Your task to perform on an android device: change keyboard looks Image 0: 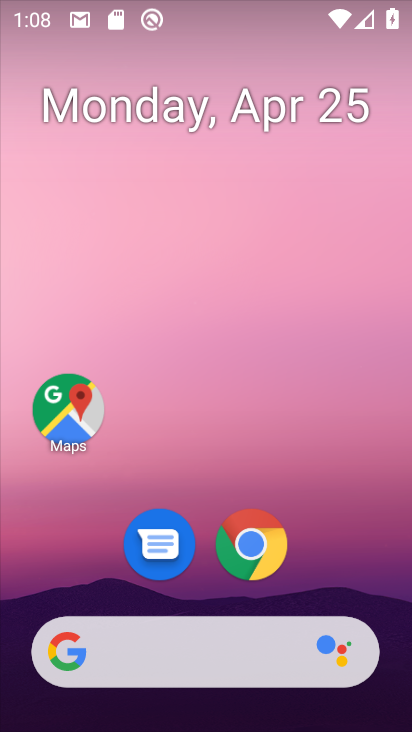
Step 0: drag from (248, 498) to (299, 4)
Your task to perform on an android device: change keyboard looks Image 1: 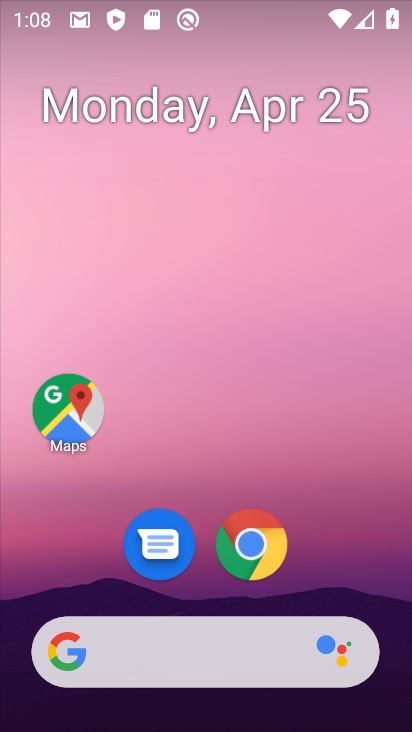
Step 1: drag from (323, 504) to (408, 34)
Your task to perform on an android device: change keyboard looks Image 2: 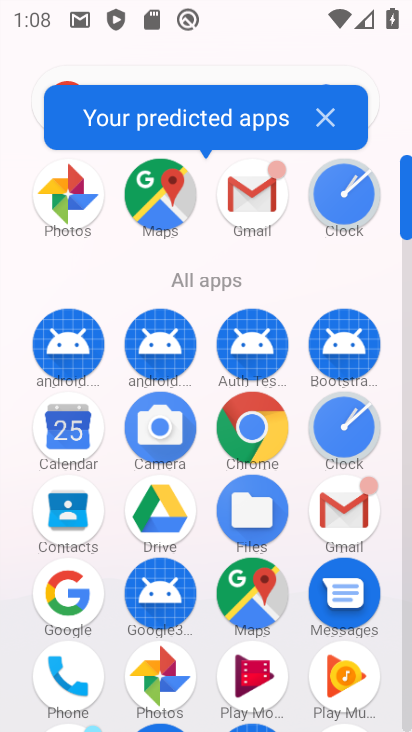
Step 2: drag from (233, 589) to (287, 344)
Your task to perform on an android device: change keyboard looks Image 3: 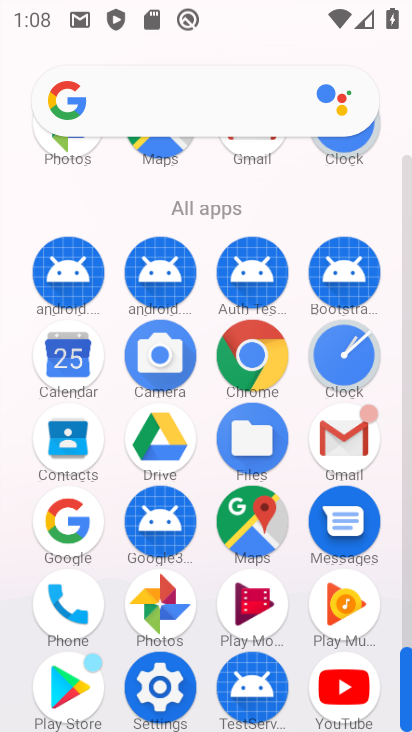
Step 3: click (173, 687)
Your task to perform on an android device: change keyboard looks Image 4: 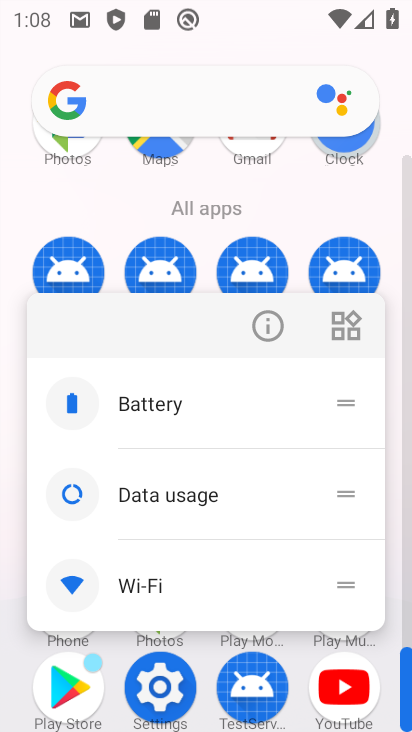
Step 4: click (173, 687)
Your task to perform on an android device: change keyboard looks Image 5: 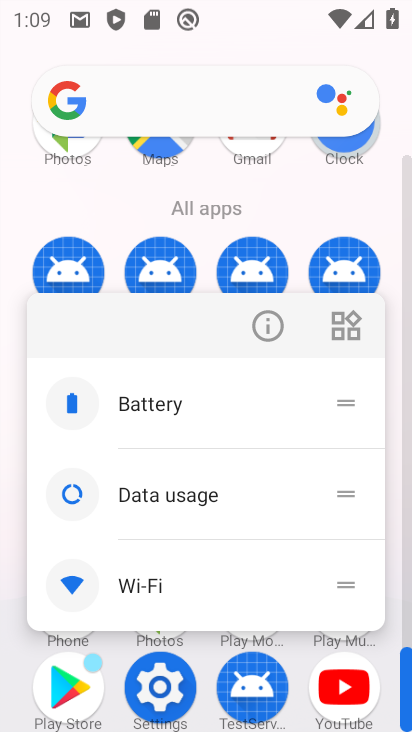
Step 5: click (159, 688)
Your task to perform on an android device: change keyboard looks Image 6: 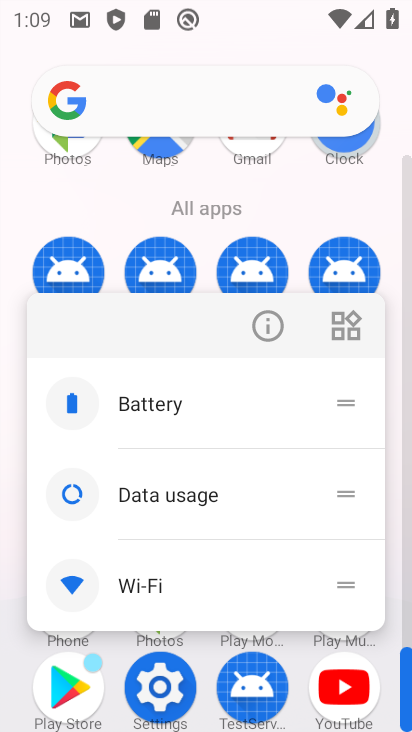
Step 6: click (160, 674)
Your task to perform on an android device: change keyboard looks Image 7: 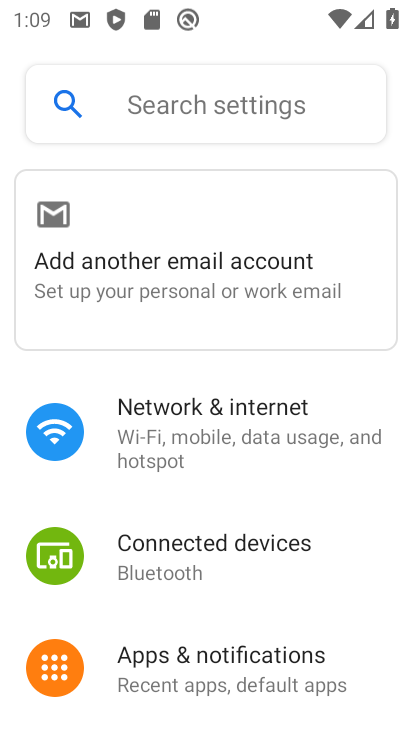
Step 7: drag from (192, 702) to (337, 200)
Your task to perform on an android device: change keyboard looks Image 8: 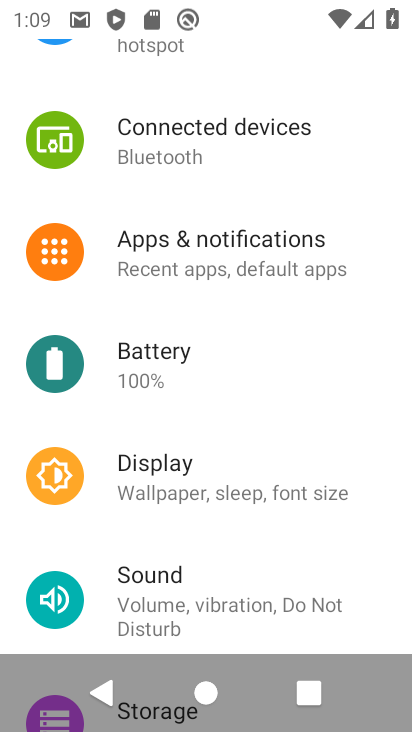
Step 8: drag from (250, 476) to (338, 102)
Your task to perform on an android device: change keyboard looks Image 9: 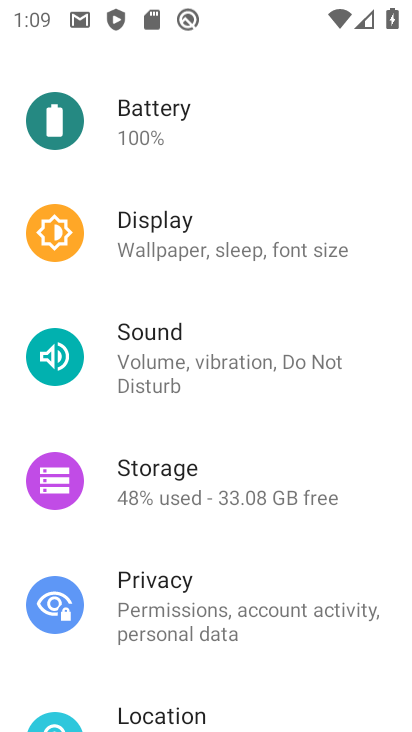
Step 9: drag from (227, 500) to (321, 182)
Your task to perform on an android device: change keyboard looks Image 10: 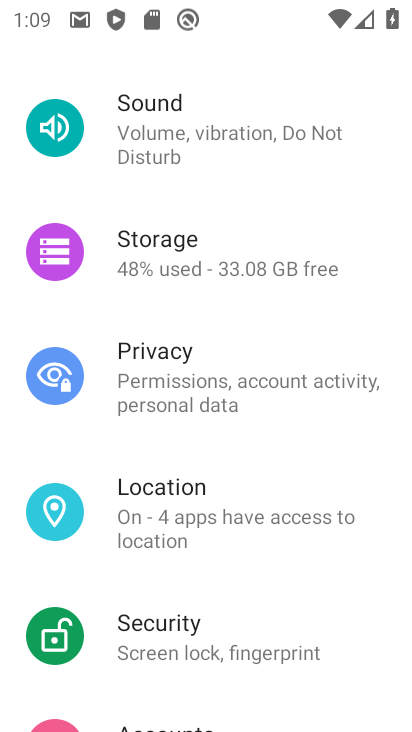
Step 10: drag from (196, 574) to (297, 195)
Your task to perform on an android device: change keyboard looks Image 11: 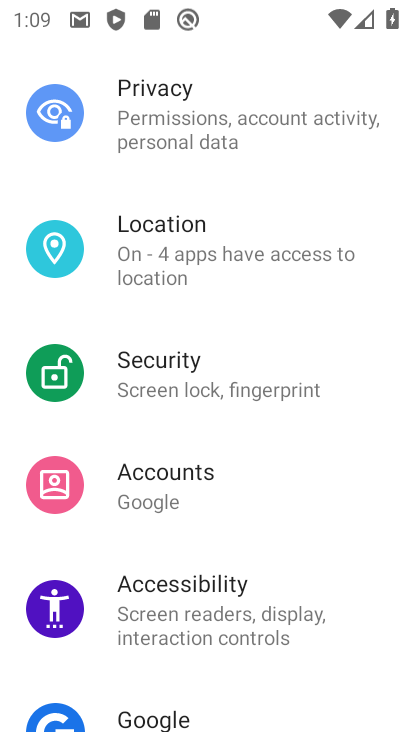
Step 11: drag from (203, 678) to (325, 282)
Your task to perform on an android device: change keyboard looks Image 12: 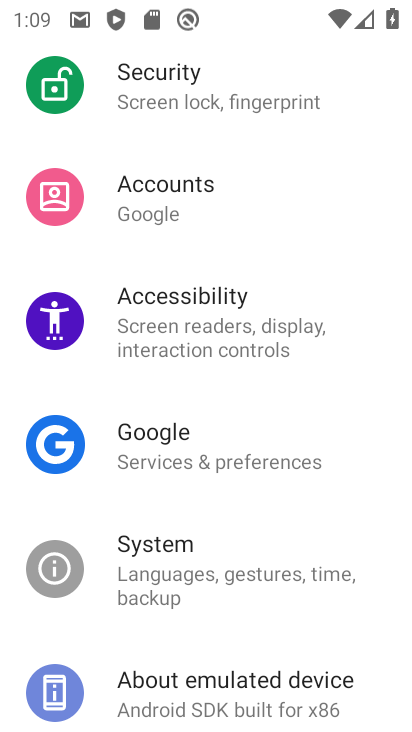
Step 12: click (233, 598)
Your task to perform on an android device: change keyboard looks Image 13: 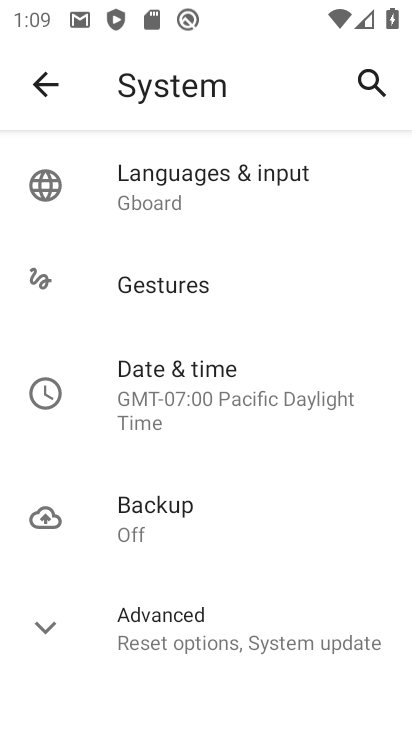
Step 13: click (265, 179)
Your task to perform on an android device: change keyboard looks Image 14: 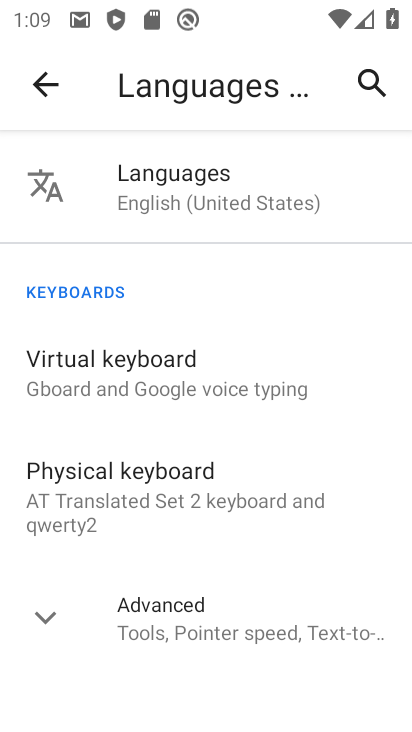
Step 14: click (215, 383)
Your task to perform on an android device: change keyboard looks Image 15: 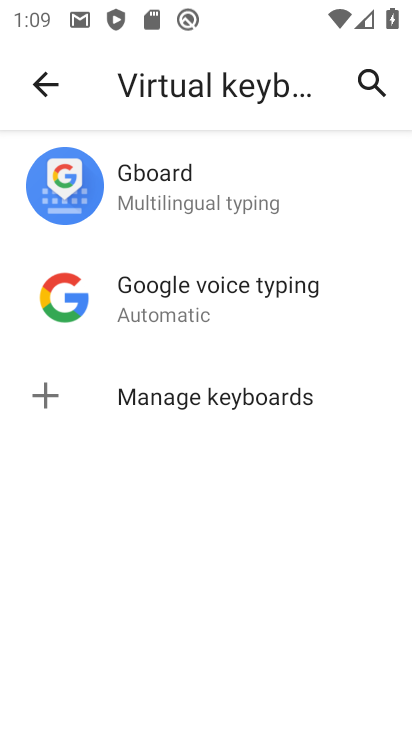
Step 15: click (258, 211)
Your task to perform on an android device: change keyboard looks Image 16: 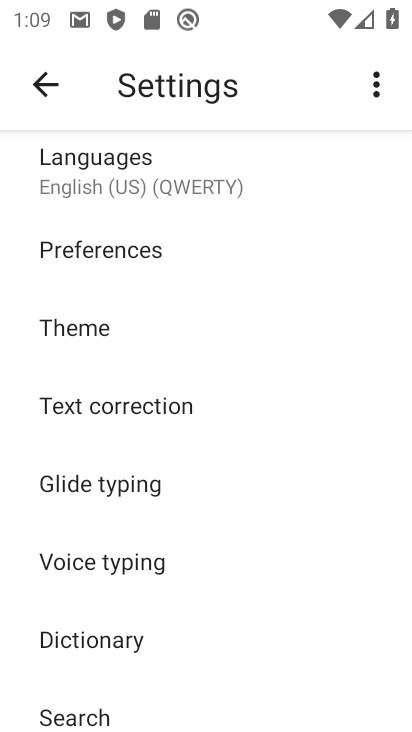
Step 16: click (198, 191)
Your task to perform on an android device: change keyboard looks Image 17: 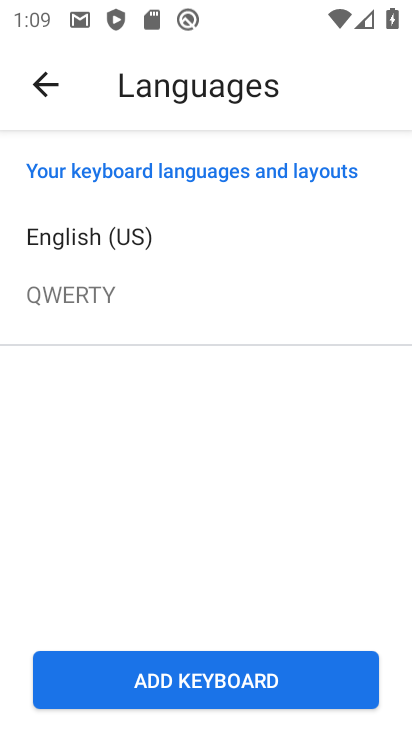
Step 17: press back button
Your task to perform on an android device: change keyboard looks Image 18: 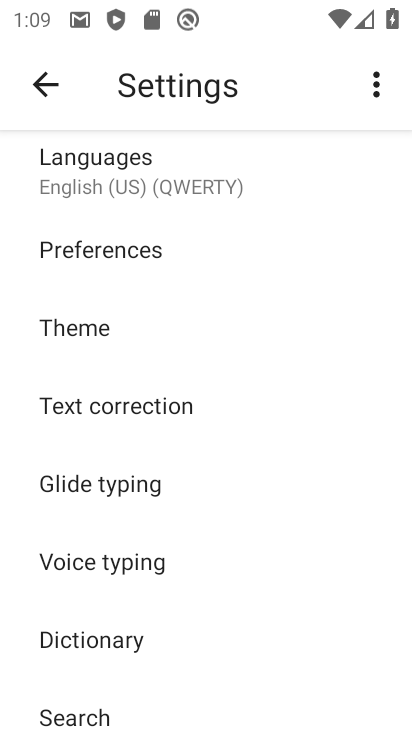
Step 18: click (118, 333)
Your task to perform on an android device: change keyboard looks Image 19: 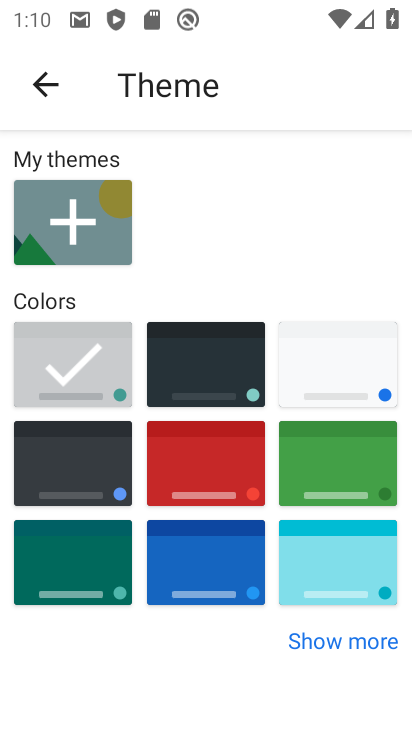
Step 19: click (345, 574)
Your task to perform on an android device: change keyboard looks Image 20: 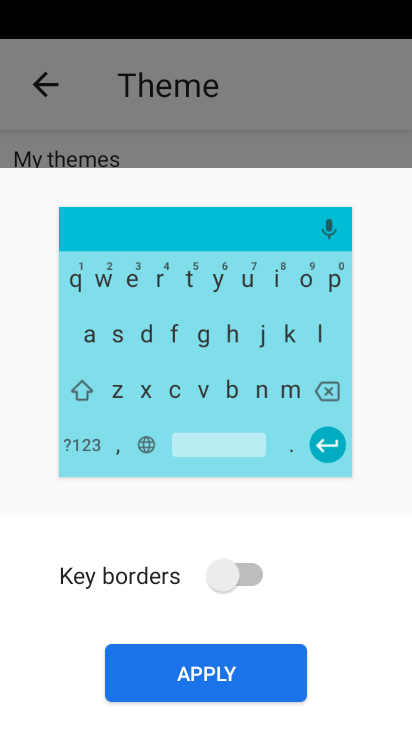
Step 20: click (274, 587)
Your task to perform on an android device: change keyboard looks Image 21: 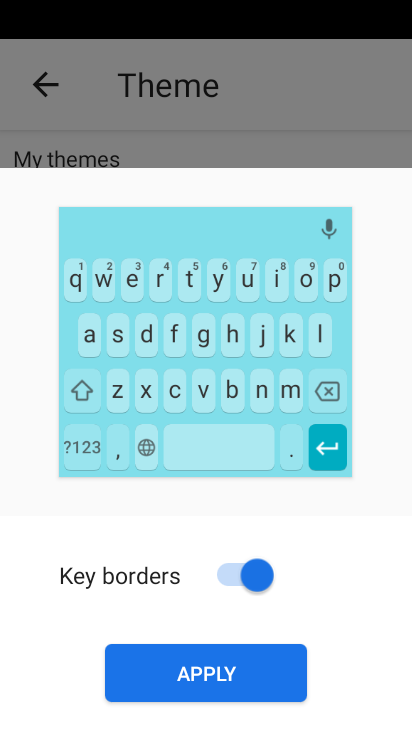
Step 21: click (184, 670)
Your task to perform on an android device: change keyboard looks Image 22: 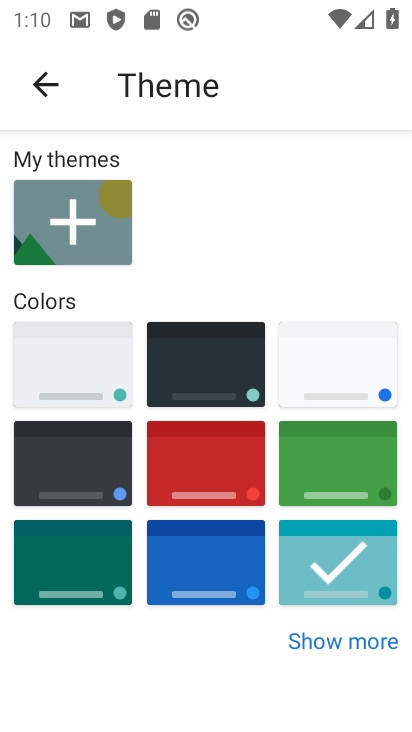
Step 22: click (57, 90)
Your task to perform on an android device: change keyboard looks Image 23: 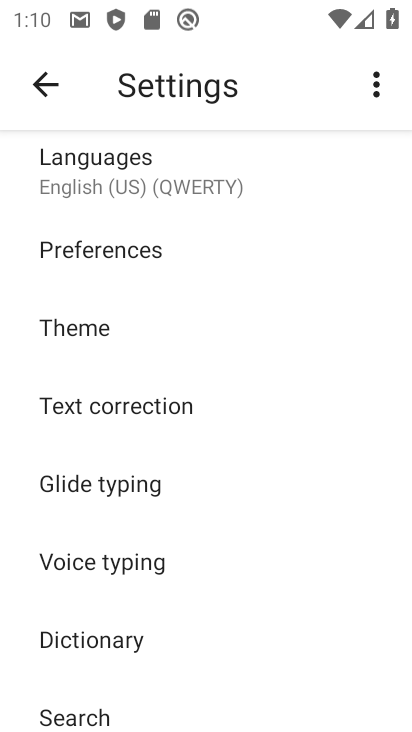
Step 23: click (171, 409)
Your task to perform on an android device: change keyboard looks Image 24: 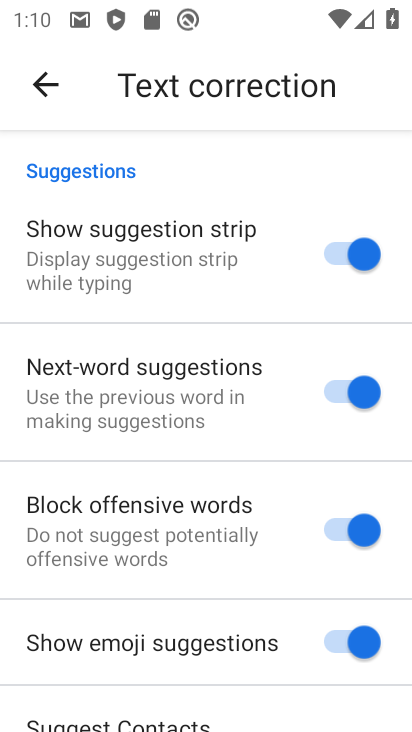
Step 24: click (70, 89)
Your task to perform on an android device: change keyboard looks Image 25: 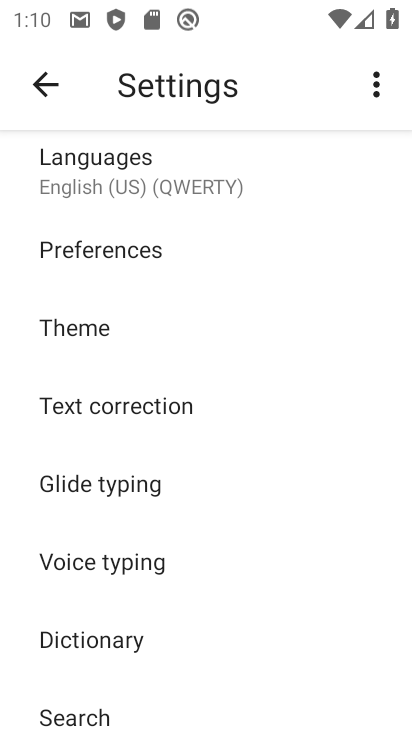
Step 25: click (192, 499)
Your task to perform on an android device: change keyboard looks Image 26: 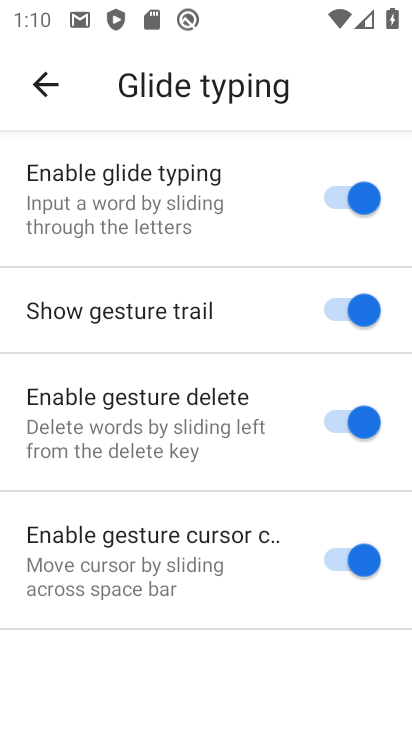
Step 26: click (66, 97)
Your task to perform on an android device: change keyboard looks Image 27: 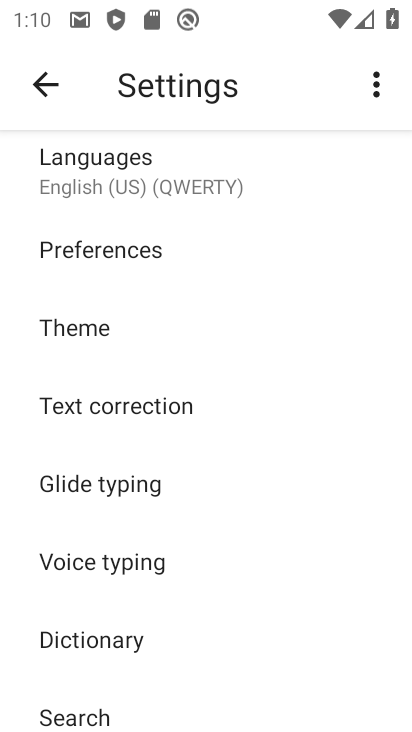
Step 27: click (142, 567)
Your task to perform on an android device: change keyboard looks Image 28: 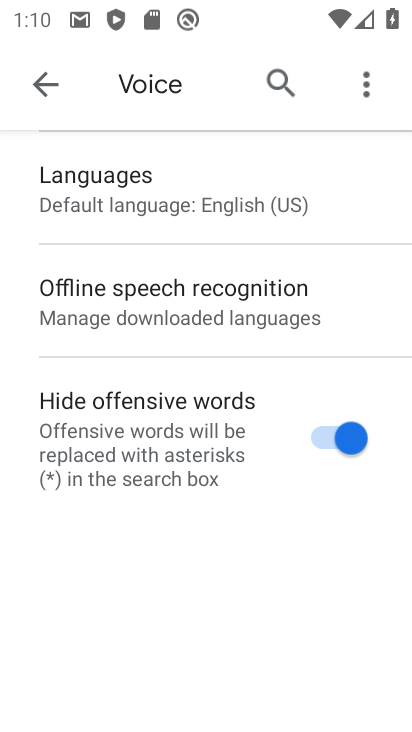
Step 28: click (193, 211)
Your task to perform on an android device: change keyboard looks Image 29: 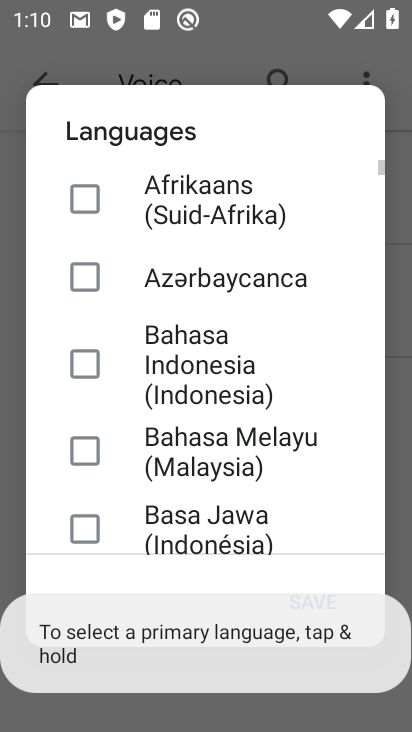
Step 29: click (80, 372)
Your task to perform on an android device: change keyboard looks Image 30: 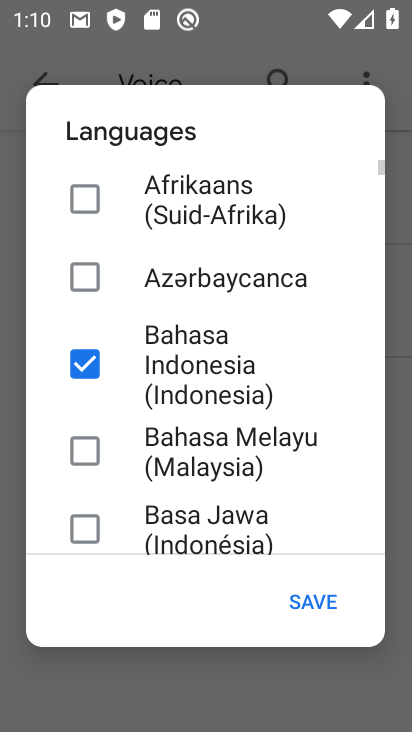
Step 30: click (323, 602)
Your task to perform on an android device: change keyboard looks Image 31: 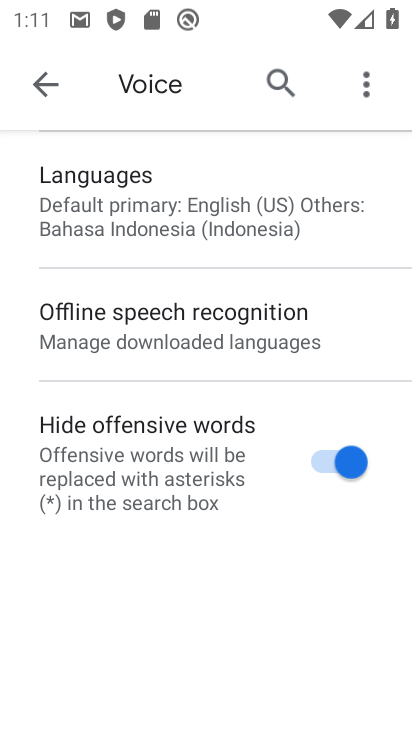
Step 31: task complete